Your task to perform on an android device: open device folders in google photos Image 0: 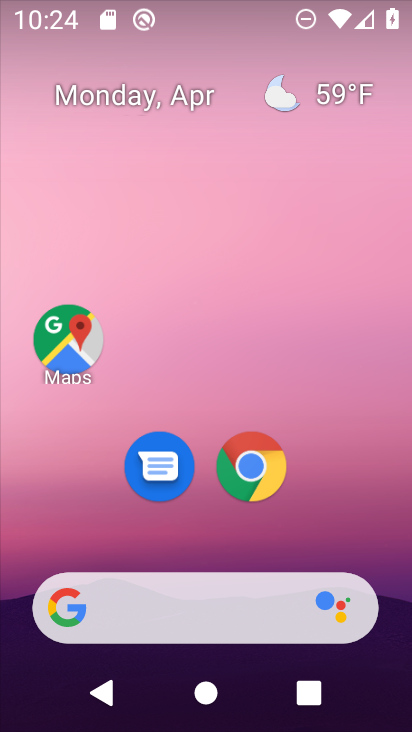
Step 0: drag from (188, 385) to (229, 49)
Your task to perform on an android device: open device folders in google photos Image 1: 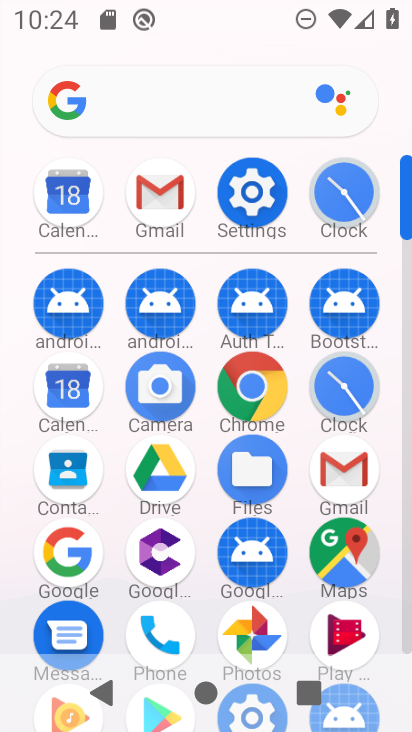
Step 1: click (250, 629)
Your task to perform on an android device: open device folders in google photos Image 2: 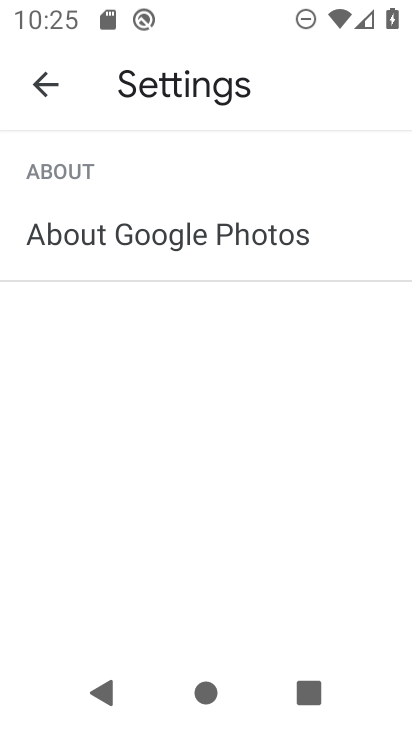
Step 2: click (38, 70)
Your task to perform on an android device: open device folders in google photos Image 3: 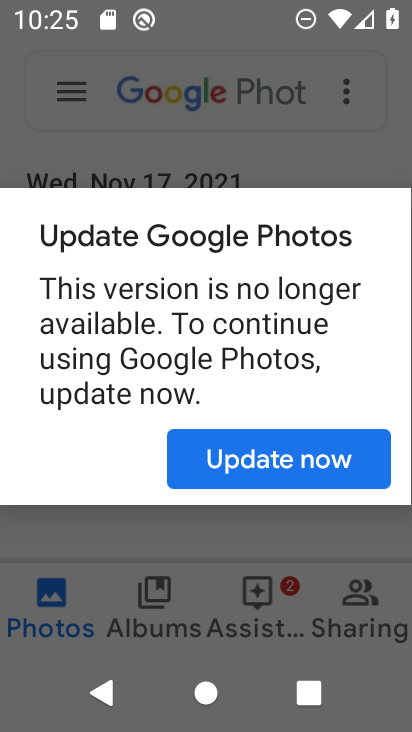
Step 3: click (129, 535)
Your task to perform on an android device: open device folders in google photos Image 4: 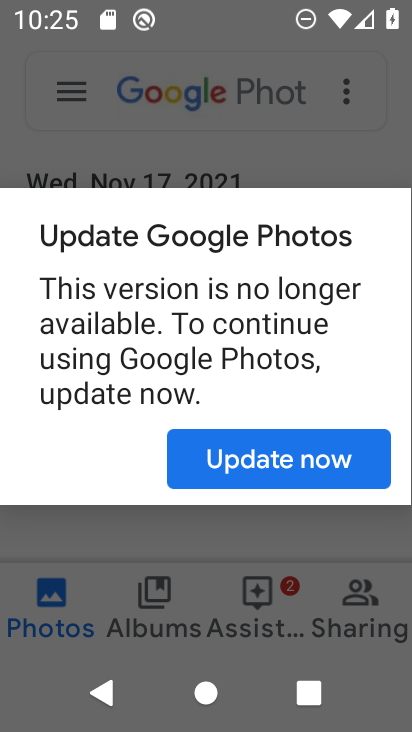
Step 4: press back button
Your task to perform on an android device: open device folders in google photos Image 5: 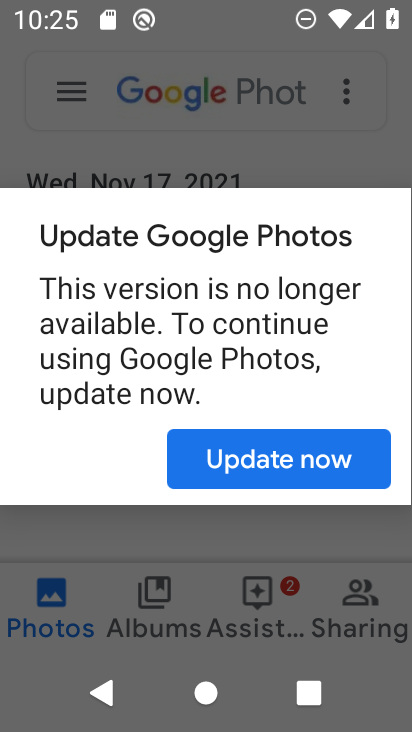
Step 5: click (291, 460)
Your task to perform on an android device: open device folders in google photos Image 6: 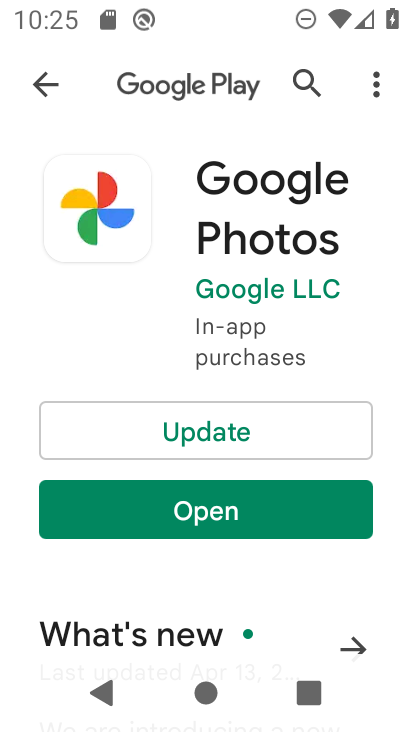
Step 6: click (210, 515)
Your task to perform on an android device: open device folders in google photos Image 7: 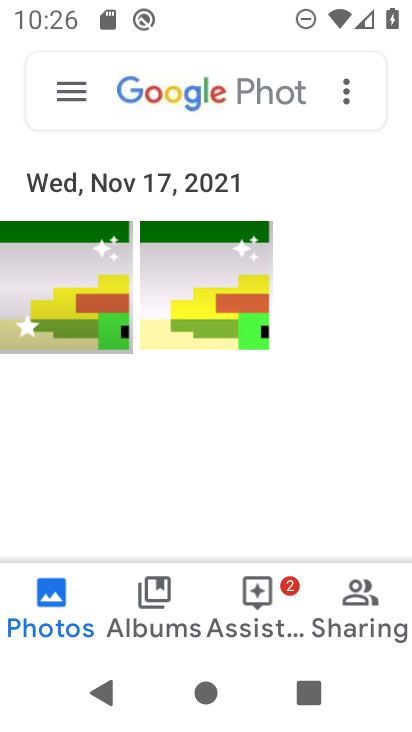
Step 7: click (60, 83)
Your task to perform on an android device: open device folders in google photos Image 8: 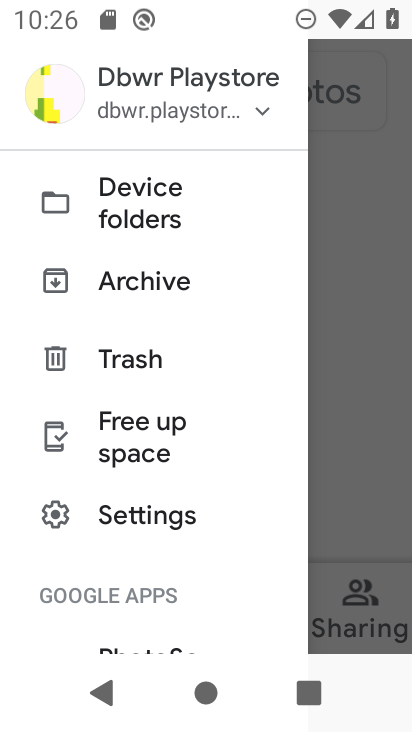
Step 8: click (162, 219)
Your task to perform on an android device: open device folders in google photos Image 9: 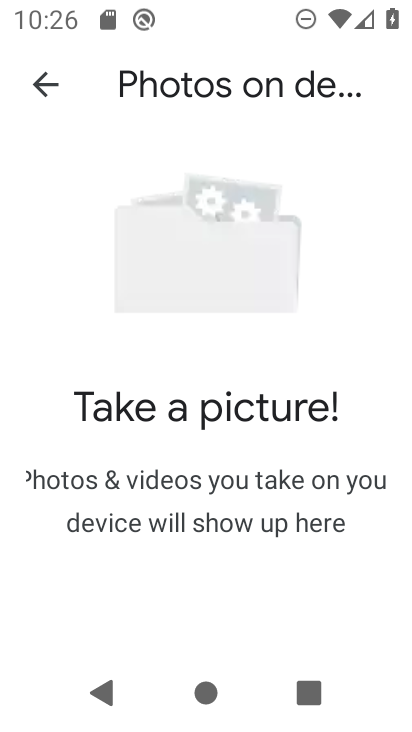
Step 9: task complete